Your task to perform on an android device: add a contact in the contacts app Image 0: 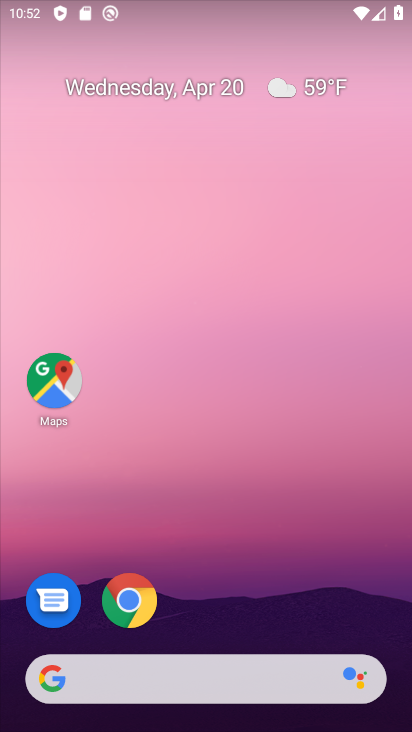
Step 0: drag from (265, 602) to (282, 184)
Your task to perform on an android device: add a contact in the contacts app Image 1: 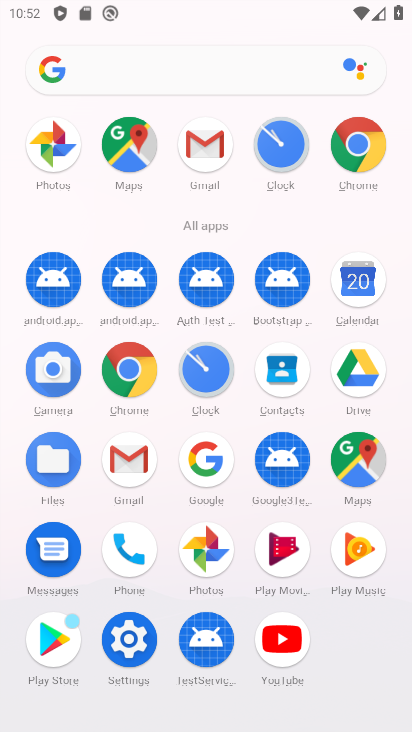
Step 1: click (284, 357)
Your task to perform on an android device: add a contact in the contacts app Image 2: 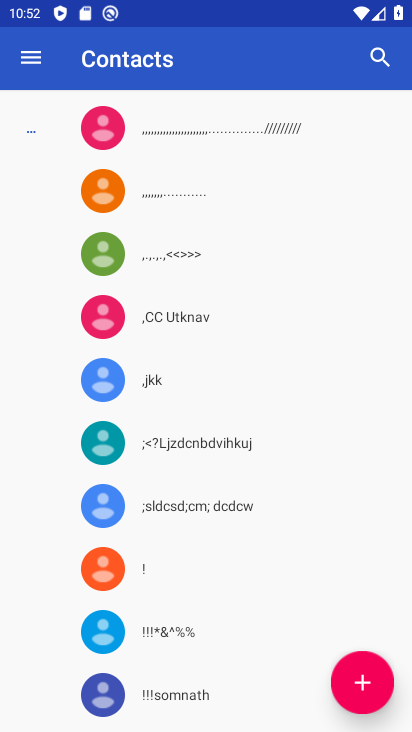
Step 2: click (367, 699)
Your task to perform on an android device: add a contact in the contacts app Image 3: 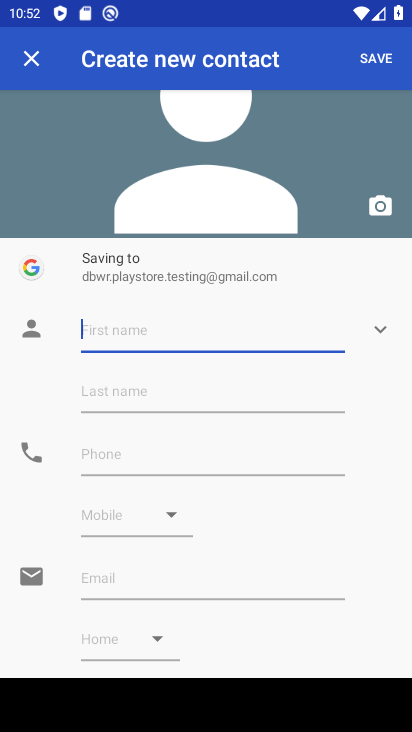
Step 3: click (207, 331)
Your task to perform on an android device: add a contact in the contacts app Image 4: 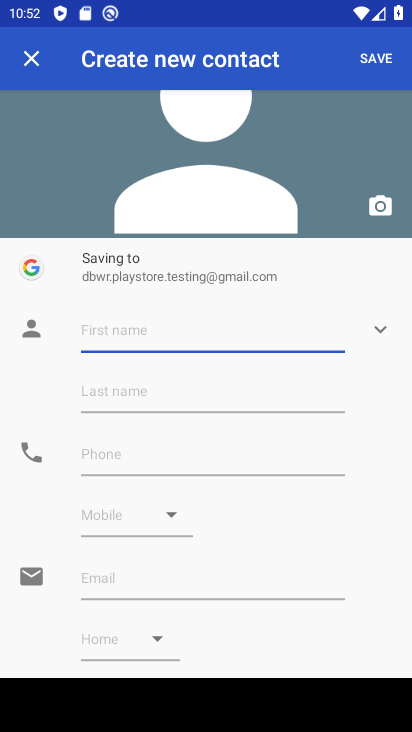
Step 4: type "cjgcjg"
Your task to perform on an android device: add a contact in the contacts app Image 5: 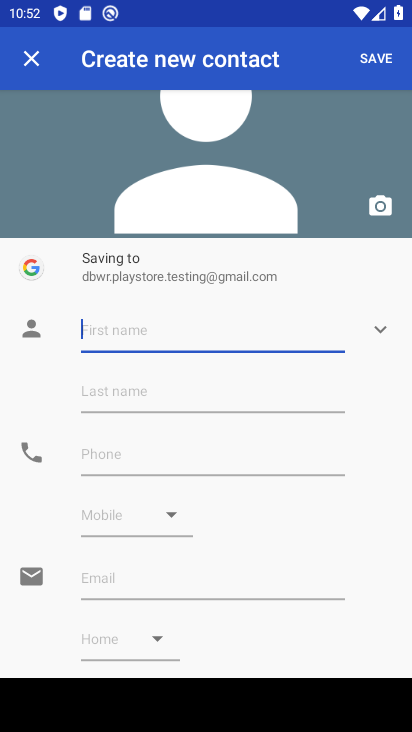
Step 5: click (218, 452)
Your task to perform on an android device: add a contact in the contacts app Image 6: 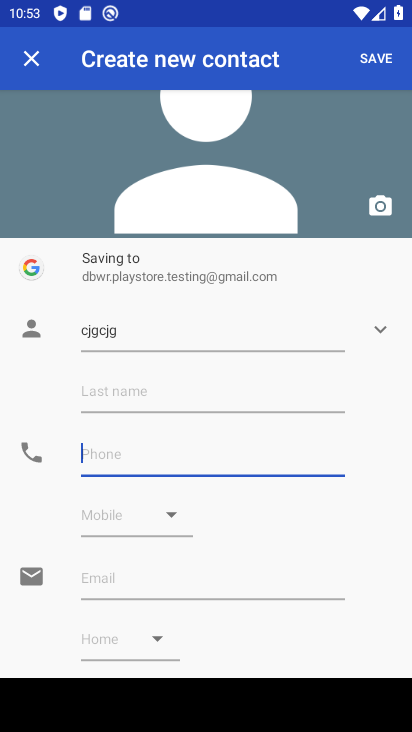
Step 6: type "858658"
Your task to perform on an android device: add a contact in the contacts app Image 7: 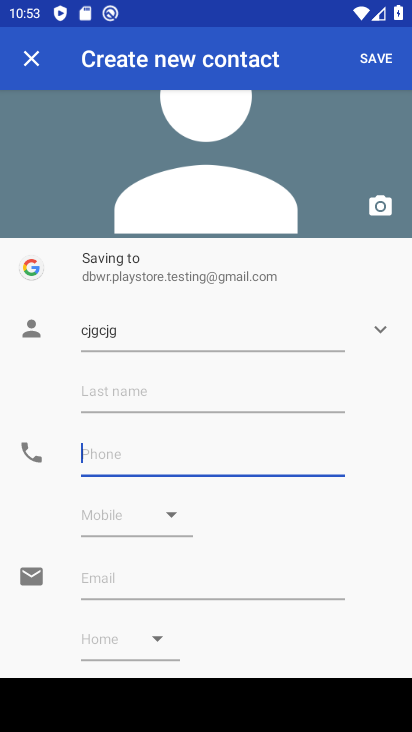
Step 7: click (360, 556)
Your task to perform on an android device: add a contact in the contacts app Image 8: 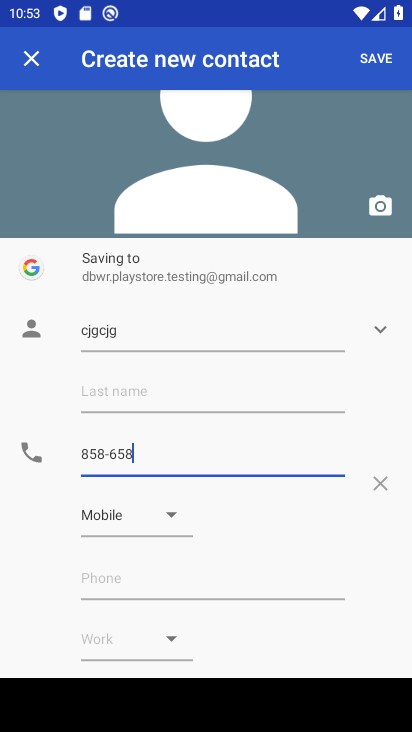
Step 8: click (373, 64)
Your task to perform on an android device: add a contact in the contacts app Image 9: 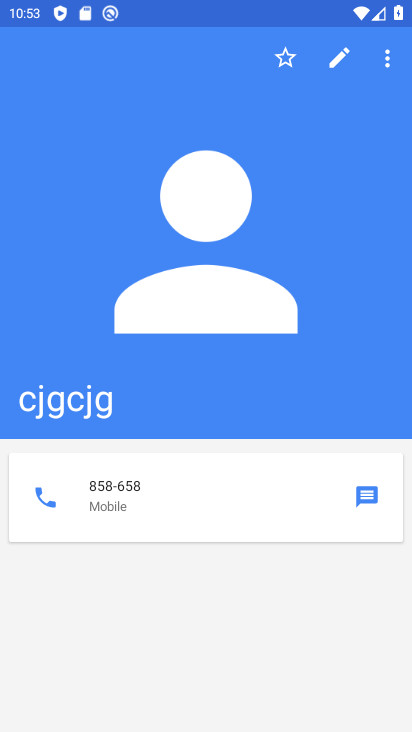
Step 9: task complete